Your task to perform on an android device: Open maps Image 0: 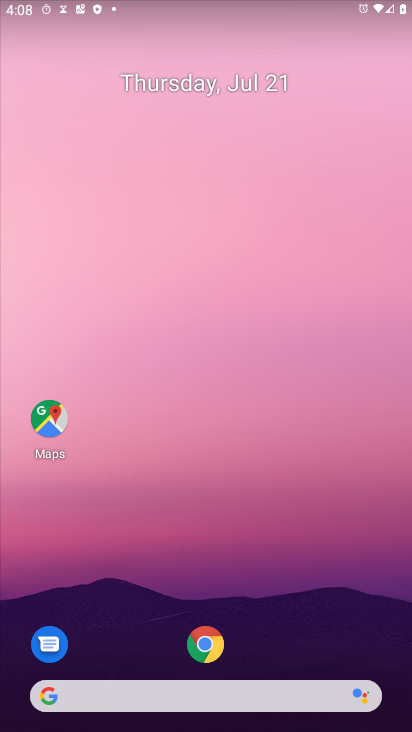
Step 0: drag from (301, 609) to (270, 105)
Your task to perform on an android device: Open maps Image 1: 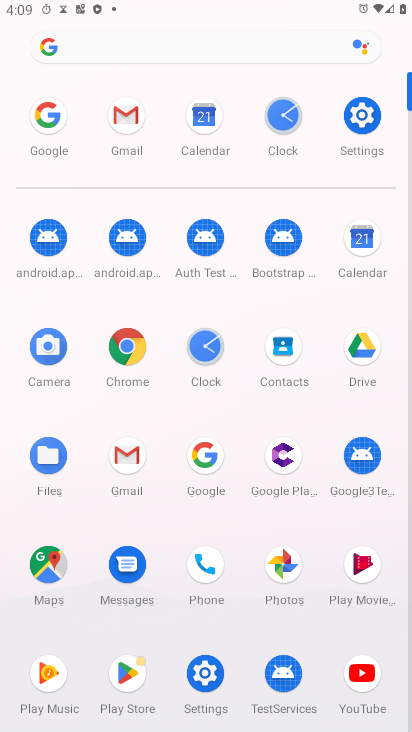
Step 1: click (39, 572)
Your task to perform on an android device: Open maps Image 2: 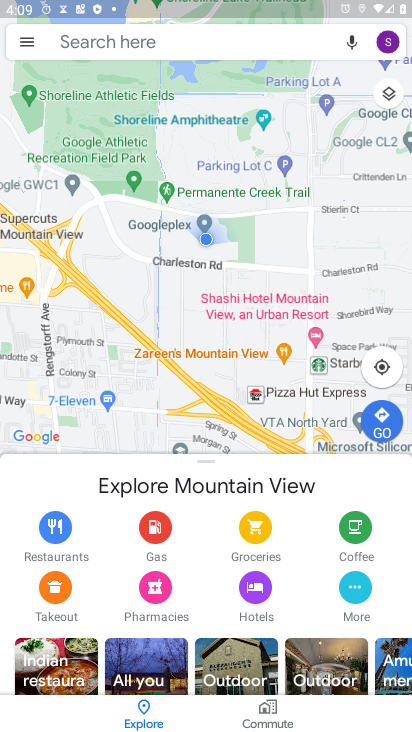
Step 2: task complete